Your task to perform on an android device: Open wifi settings Image 0: 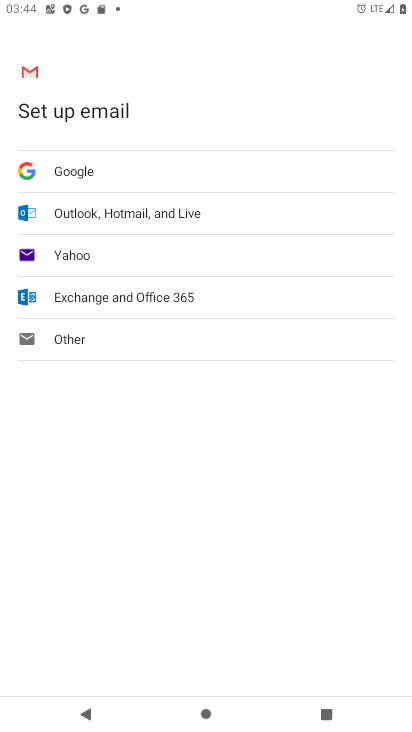
Step 0: press home button
Your task to perform on an android device: Open wifi settings Image 1: 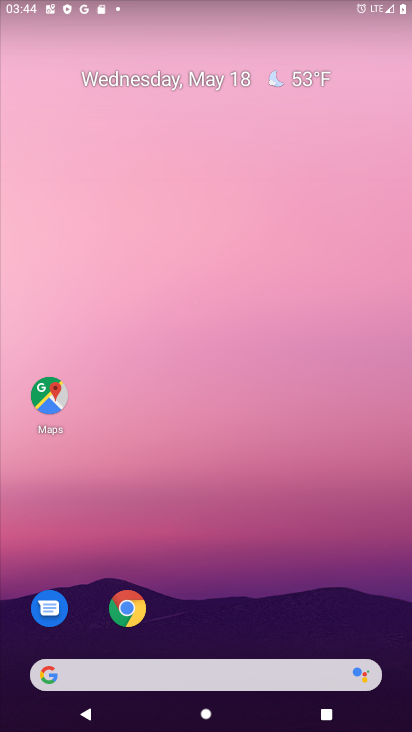
Step 1: drag from (221, 619) to (149, 34)
Your task to perform on an android device: Open wifi settings Image 2: 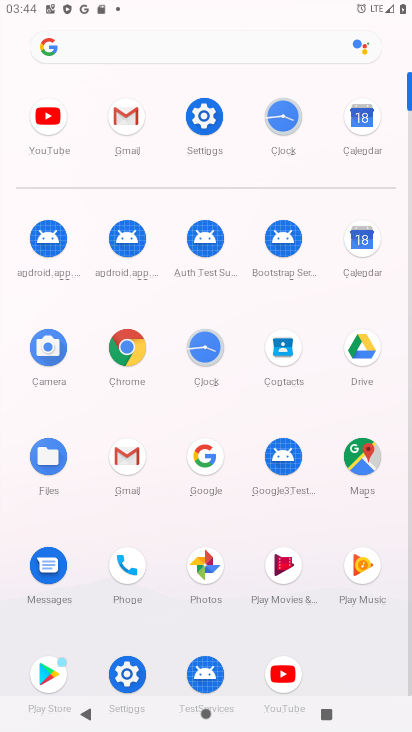
Step 2: click (192, 138)
Your task to perform on an android device: Open wifi settings Image 3: 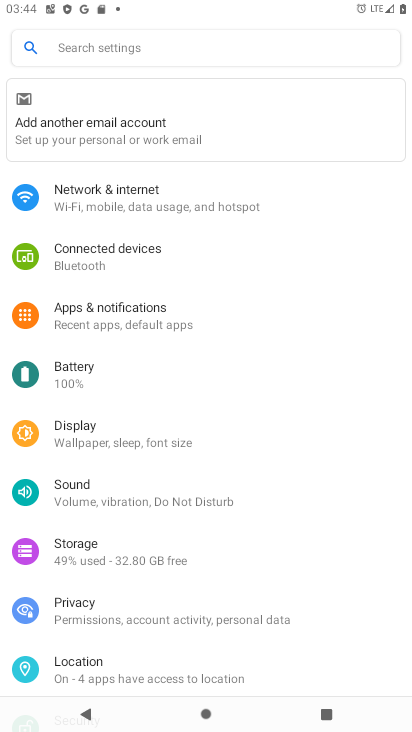
Step 3: click (138, 200)
Your task to perform on an android device: Open wifi settings Image 4: 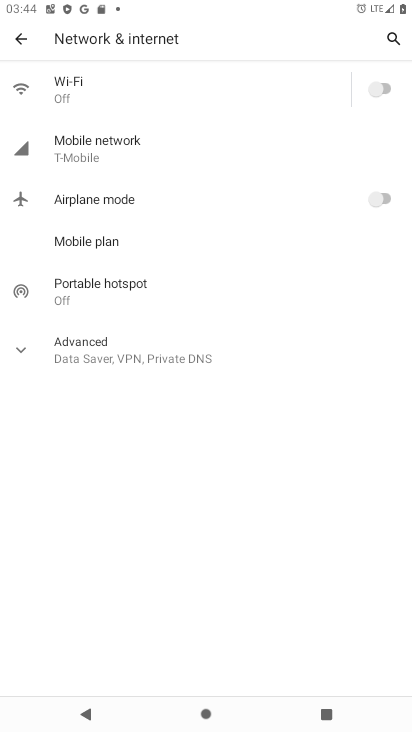
Step 4: click (56, 86)
Your task to perform on an android device: Open wifi settings Image 5: 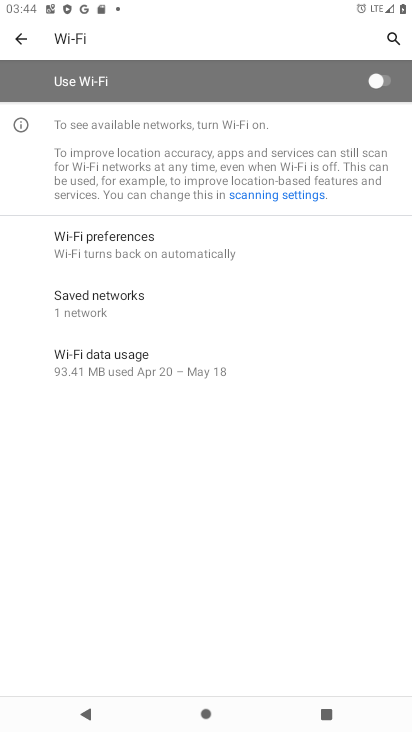
Step 5: task complete